Your task to perform on an android device: turn on sleep mode Image 0: 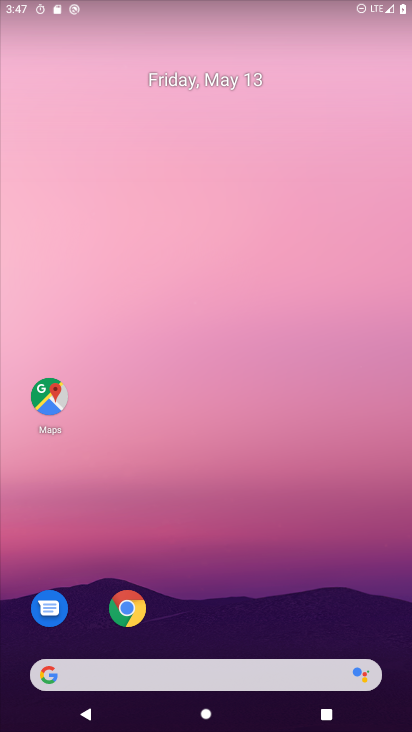
Step 0: drag from (240, 596) to (238, 118)
Your task to perform on an android device: turn on sleep mode Image 1: 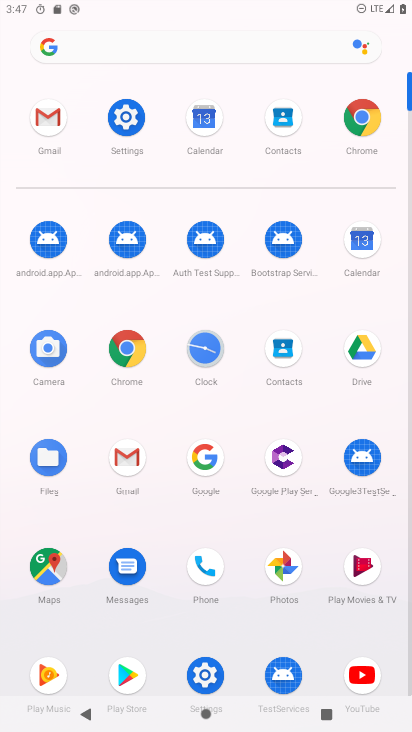
Step 1: click (116, 122)
Your task to perform on an android device: turn on sleep mode Image 2: 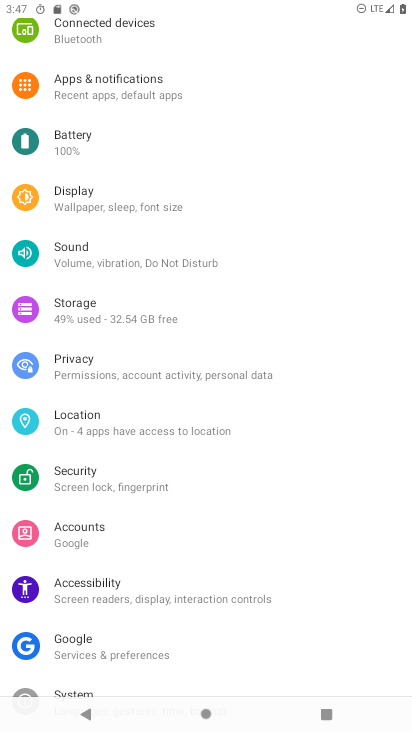
Step 2: click (154, 214)
Your task to perform on an android device: turn on sleep mode Image 3: 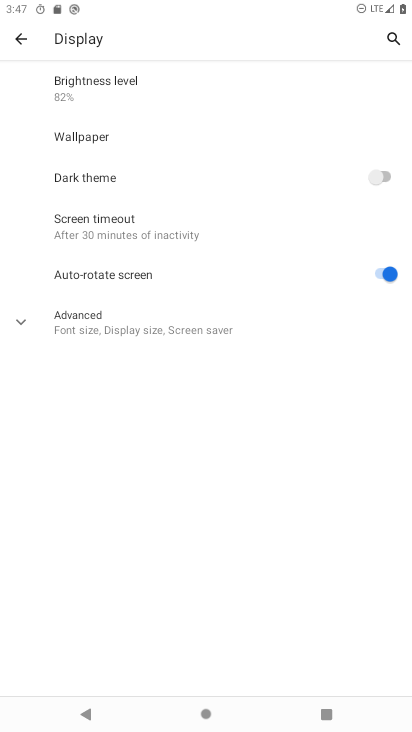
Step 3: task complete